Your task to perform on an android device: move a message to another label in the gmail app Image 0: 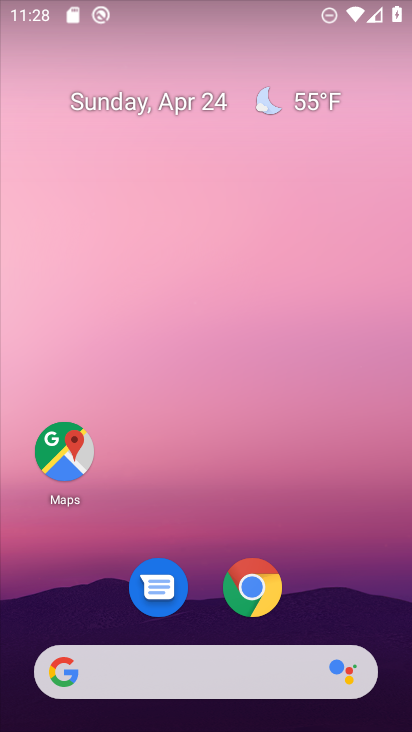
Step 0: drag from (319, 496) to (282, 119)
Your task to perform on an android device: move a message to another label in the gmail app Image 1: 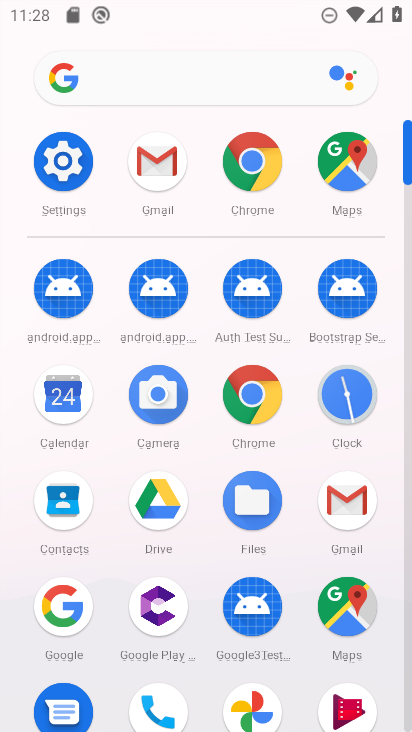
Step 1: click (337, 500)
Your task to perform on an android device: move a message to another label in the gmail app Image 2: 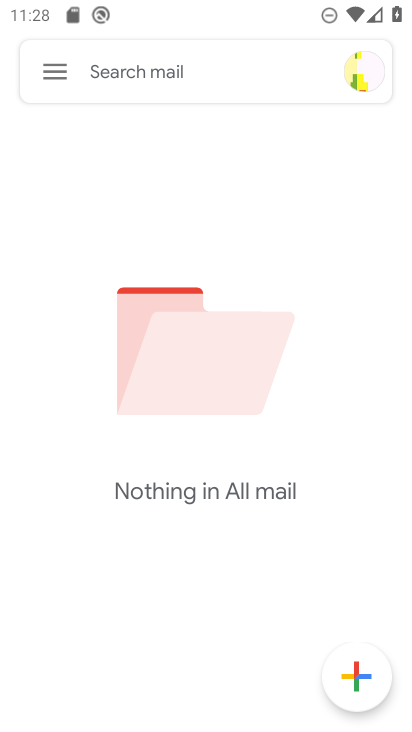
Step 2: click (53, 65)
Your task to perform on an android device: move a message to another label in the gmail app Image 3: 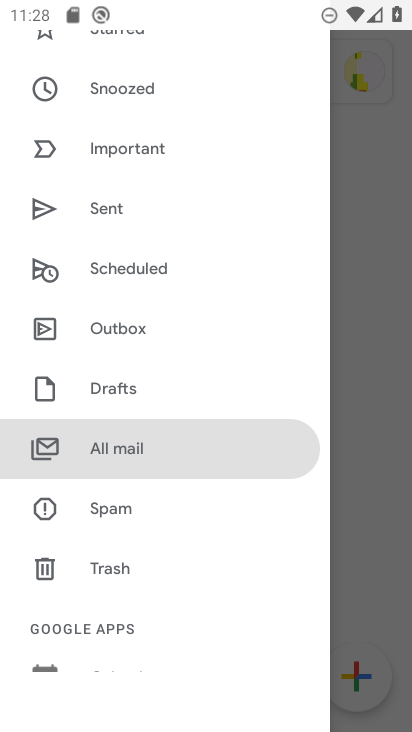
Step 3: click (381, 236)
Your task to perform on an android device: move a message to another label in the gmail app Image 4: 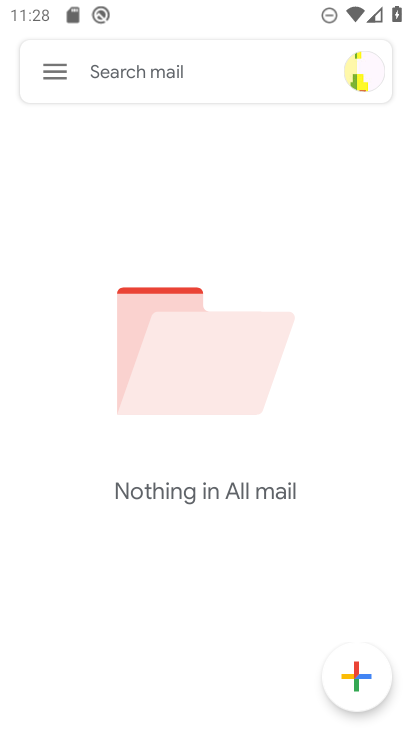
Step 4: task complete